Your task to perform on an android device: Open the web browser Image 0: 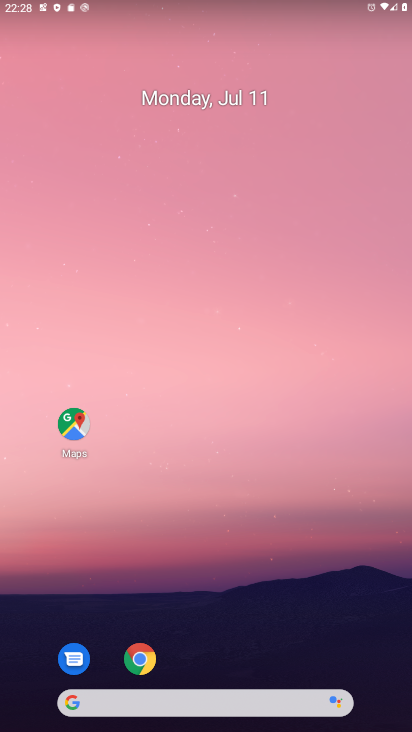
Step 0: drag from (182, 668) to (227, 63)
Your task to perform on an android device: Open the web browser Image 1: 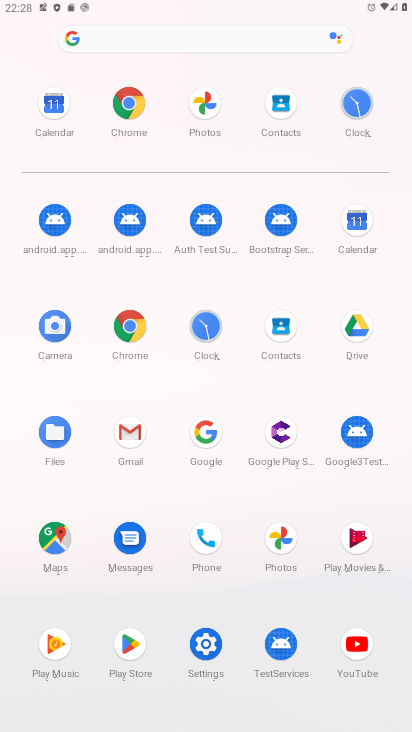
Step 1: click (125, 336)
Your task to perform on an android device: Open the web browser Image 2: 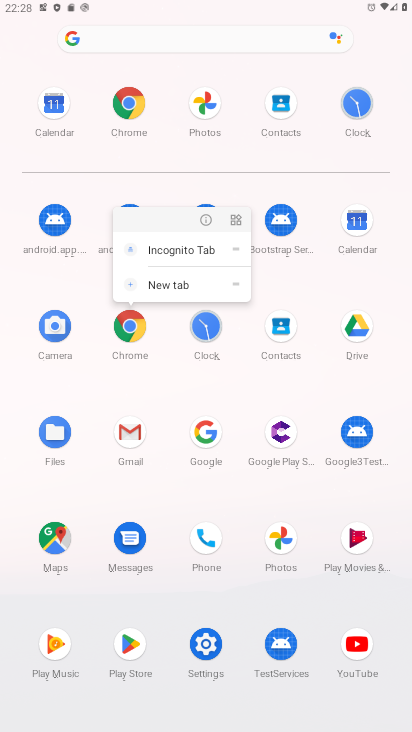
Step 2: click (200, 217)
Your task to perform on an android device: Open the web browser Image 3: 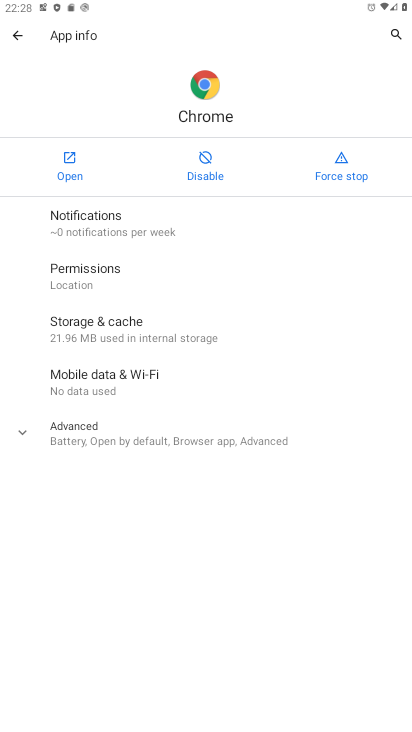
Step 3: click (74, 157)
Your task to perform on an android device: Open the web browser Image 4: 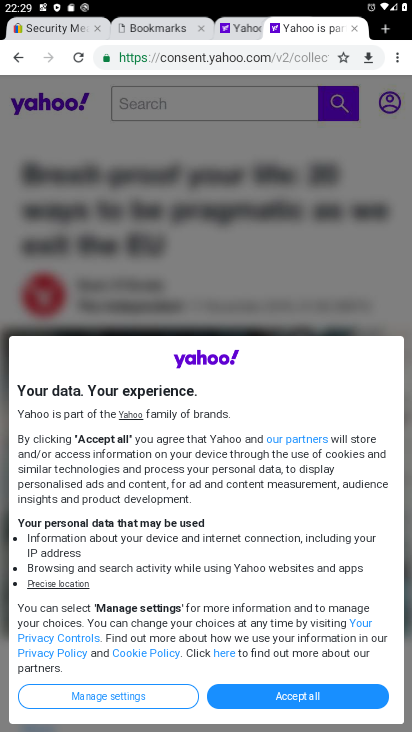
Step 4: drag from (218, 519) to (309, 207)
Your task to perform on an android device: Open the web browser Image 5: 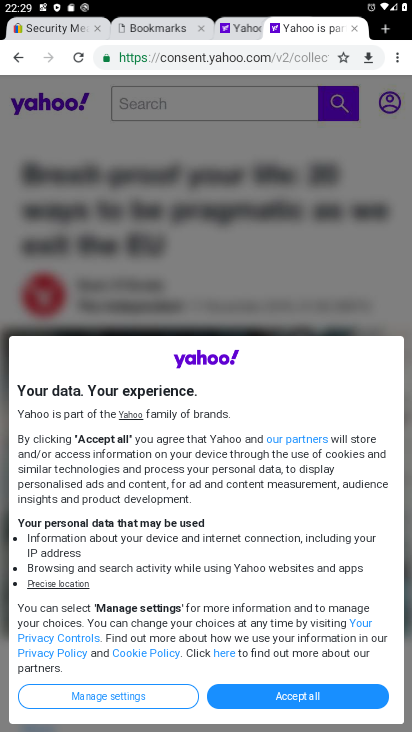
Step 5: click (401, 63)
Your task to perform on an android device: Open the web browser Image 6: 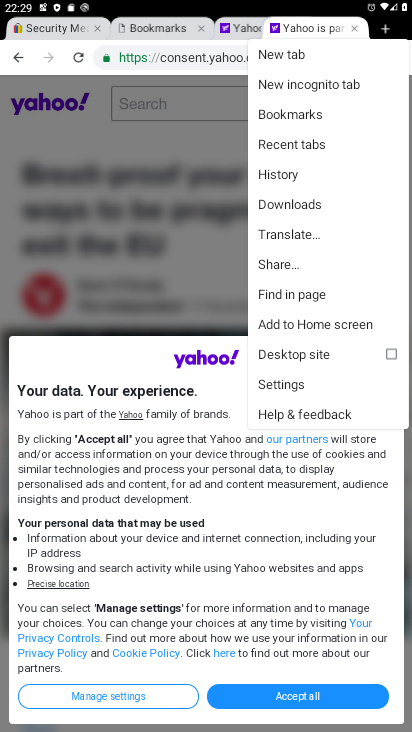
Step 6: task complete